Your task to perform on an android device: open app "TextNow: Call + Text Unlimited" Image 0: 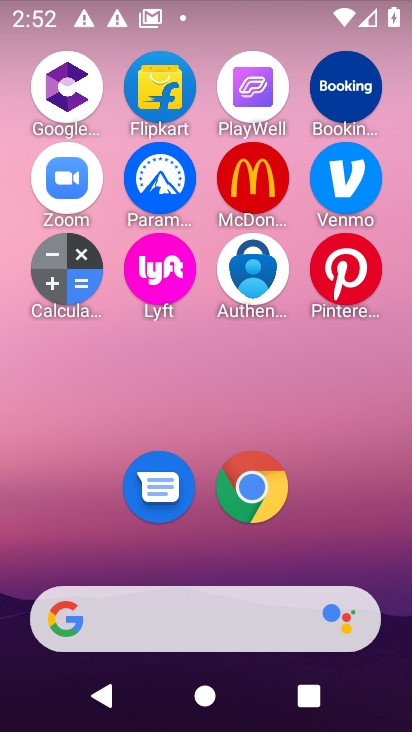
Step 0: drag from (146, 627) to (211, 11)
Your task to perform on an android device: open app "TextNow: Call + Text Unlimited" Image 1: 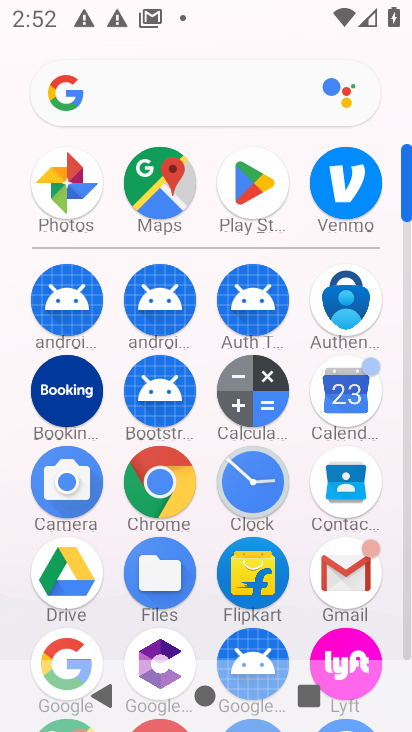
Step 1: click (251, 190)
Your task to perform on an android device: open app "TextNow: Call + Text Unlimited" Image 2: 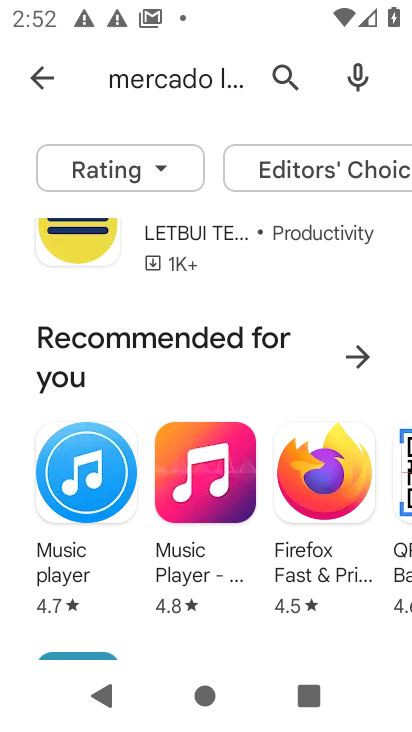
Step 2: press back button
Your task to perform on an android device: open app "TextNow: Call + Text Unlimited" Image 3: 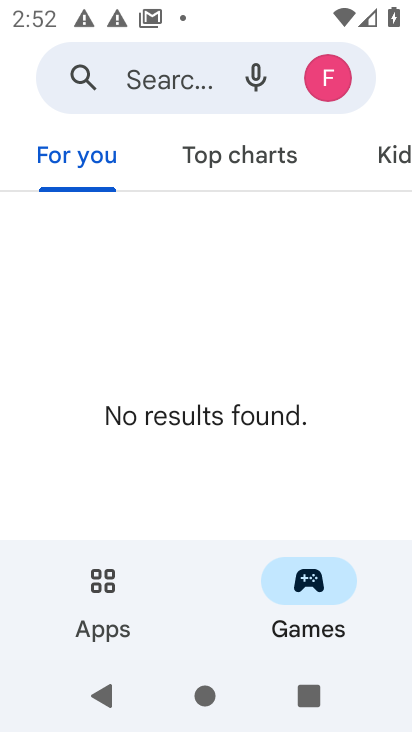
Step 3: click (182, 81)
Your task to perform on an android device: open app "TextNow: Call + Text Unlimited" Image 4: 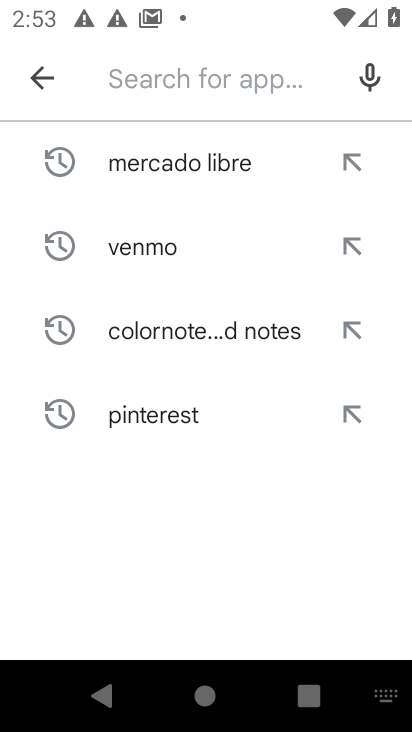
Step 4: type "TextNow; Call + Text Unlimited"
Your task to perform on an android device: open app "TextNow: Call + Text Unlimited" Image 5: 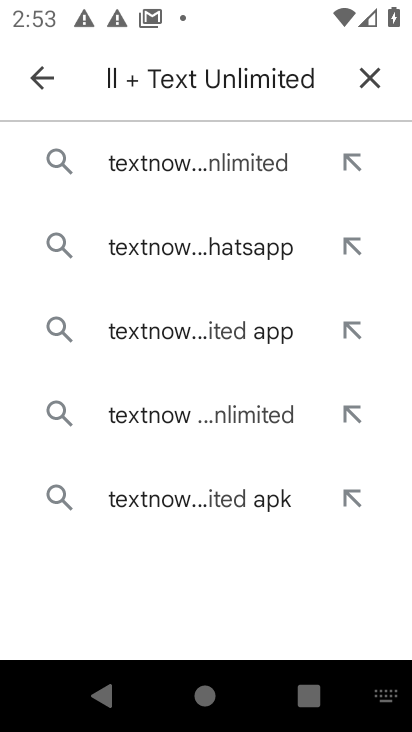
Step 5: click (267, 171)
Your task to perform on an android device: open app "TextNow: Call + Text Unlimited" Image 6: 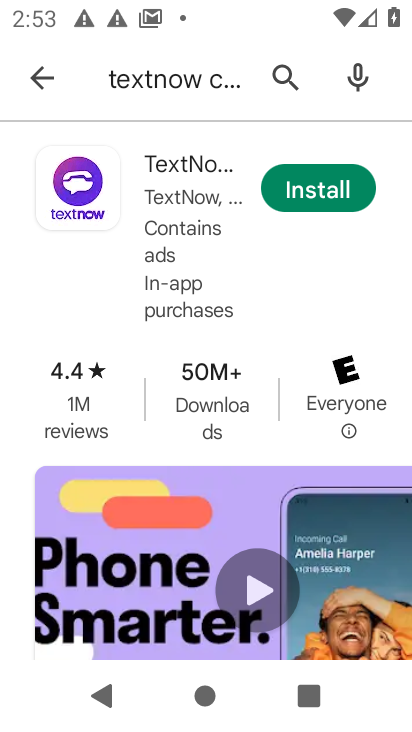
Step 6: click (292, 191)
Your task to perform on an android device: open app "TextNow: Call + Text Unlimited" Image 7: 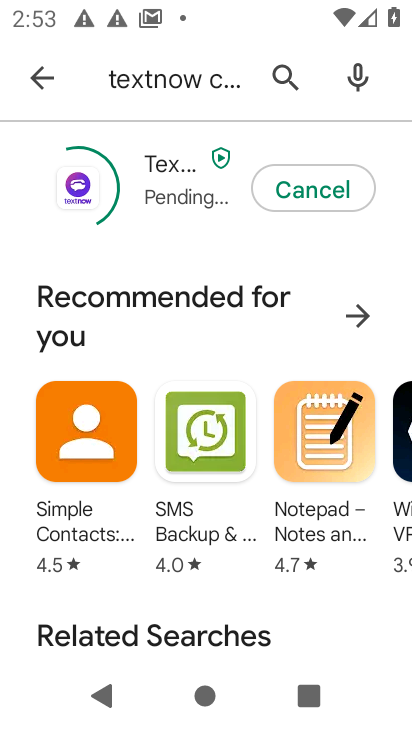
Step 7: click (300, 196)
Your task to perform on an android device: open app "TextNow: Call + Text Unlimited" Image 8: 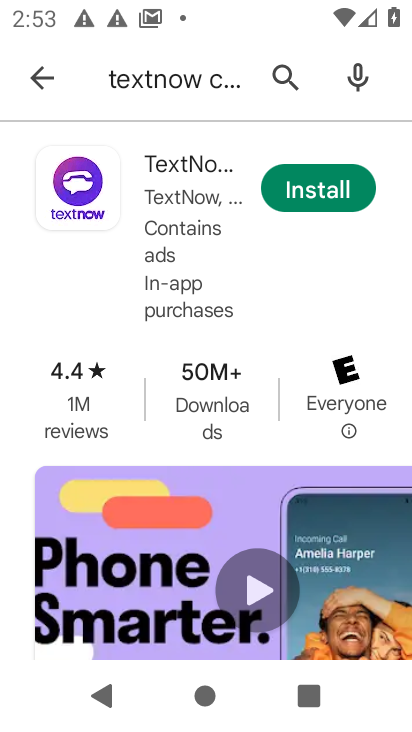
Step 8: task complete